Your task to perform on an android device: Open Google Maps Image 0: 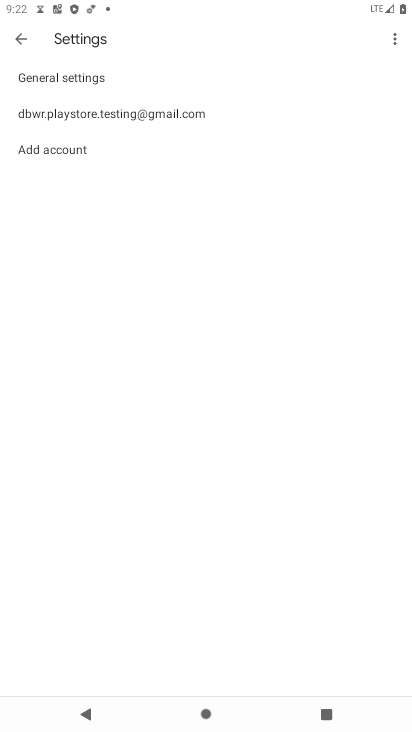
Step 0: press home button
Your task to perform on an android device: Open Google Maps Image 1: 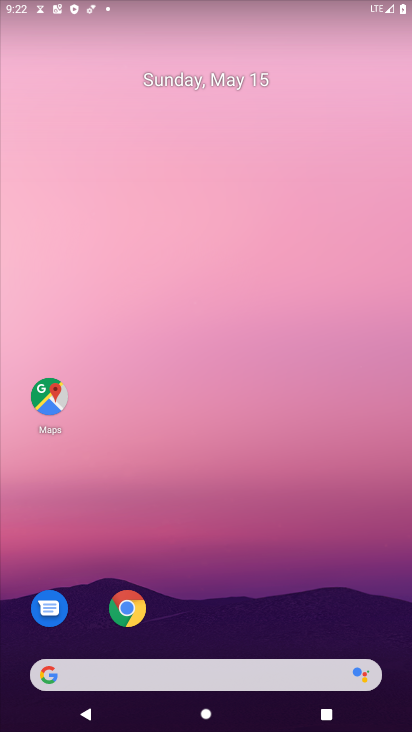
Step 1: drag from (286, 587) to (255, 48)
Your task to perform on an android device: Open Google Maps Image 2: 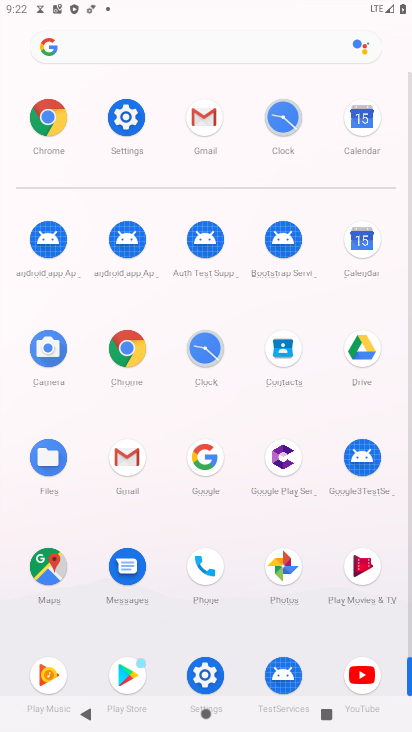
Step 2: click (40, 577)
Your task to perform on an android device: Open Google Maps Image 3: 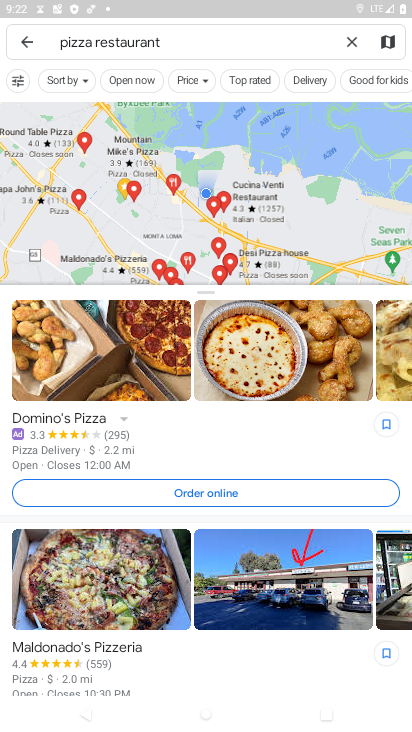
Step 3: task complete